Your task to perform on an android device: Open privacy settings Image 0: 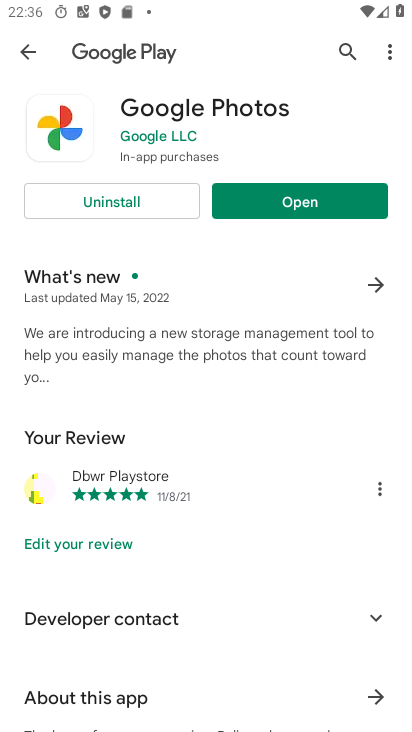
Step 0: press home button
Your task to perform on an android device: Open privacy settings Image 1: 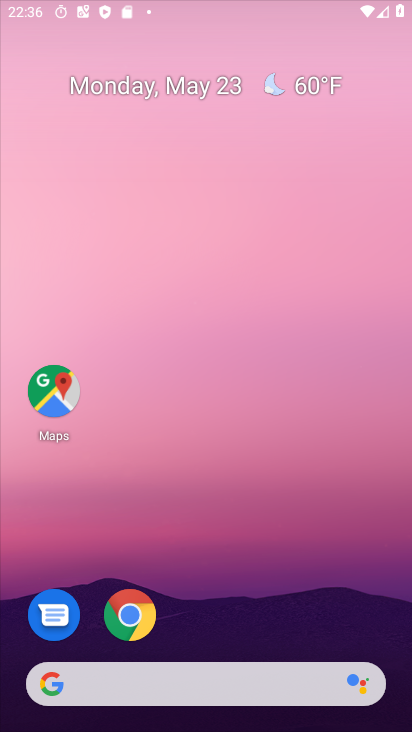
Step 1: drag from (214, 643) to (187, 94)
Your task to perform on an android device: Open privacy settings Image 2: 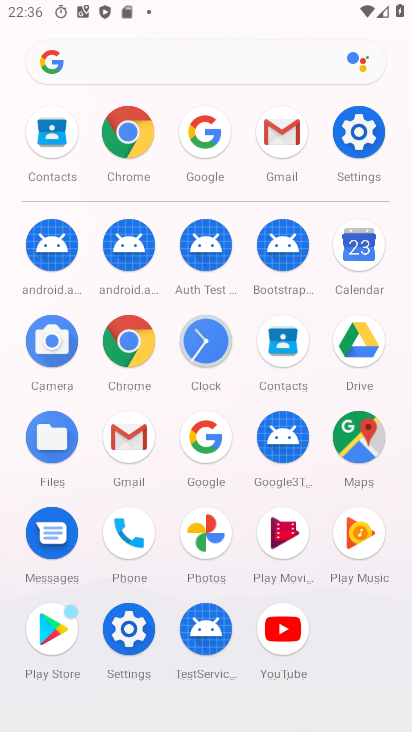
Step 2: click (358, 138)
Your task to perform on an android device: Open privacy settings Image 3: 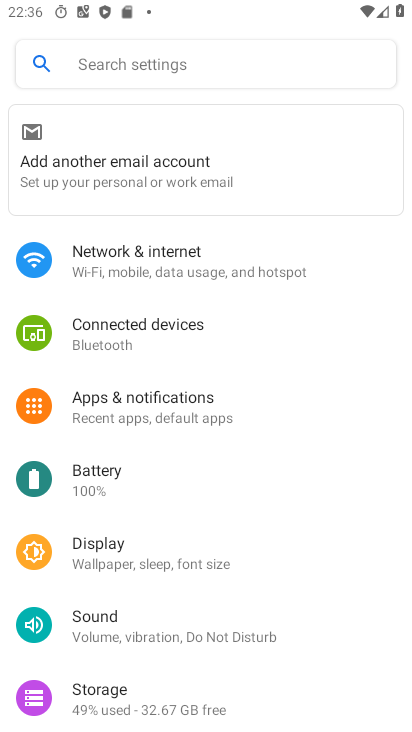
Step 3: drag from (198, 593) to (203, 298)
Your task to perform on an android device: Open privacy settings Image 4: 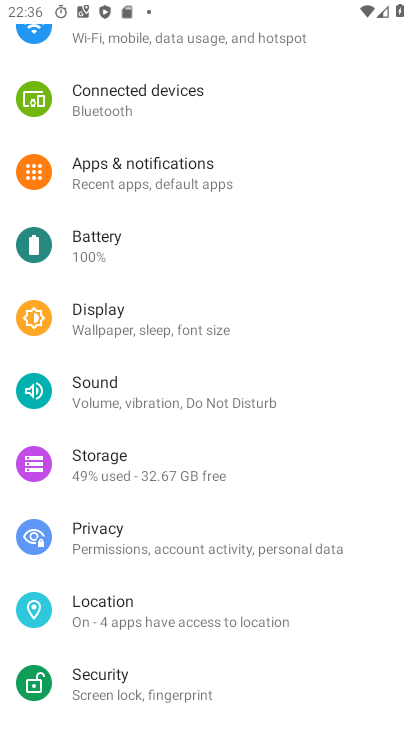
Step 4: click (126, 548)
Your task to perform on an android device: Open privacy settings Image 5: 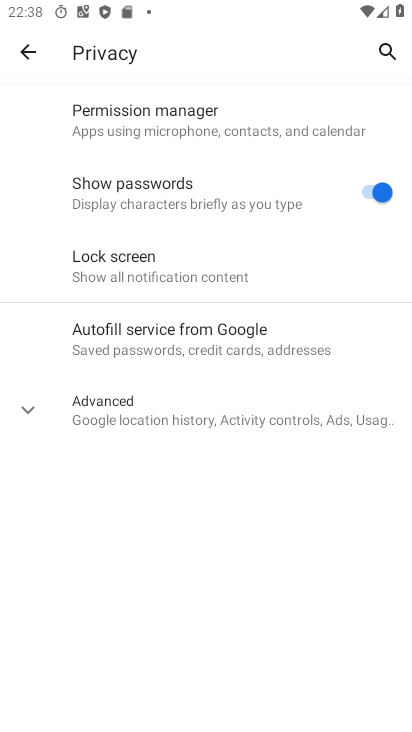
Step 5: task complete